Your task to perform on an android device: turn on airplane mode Image 0: 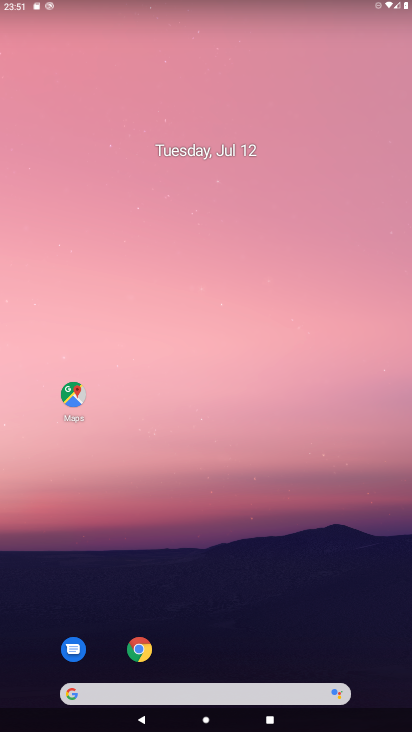
Step 0: drag from (357, 656) to (284, 166)
Your task to perform on an android device: turn on airplane mode Image 1: 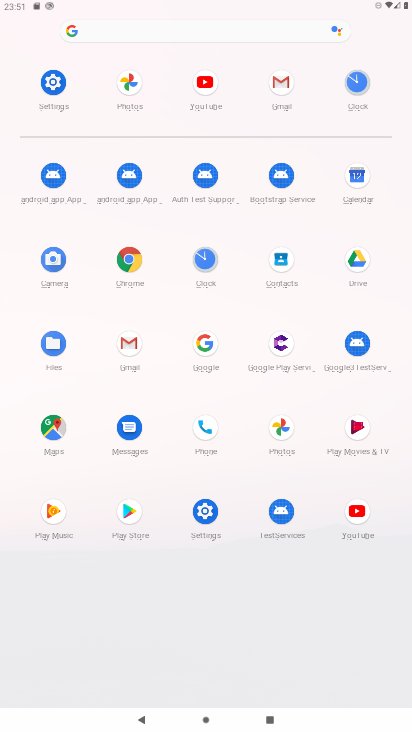
Step 1: click (202, 511)
Your task to perform on an android device: turn on airplane mode Image 2: 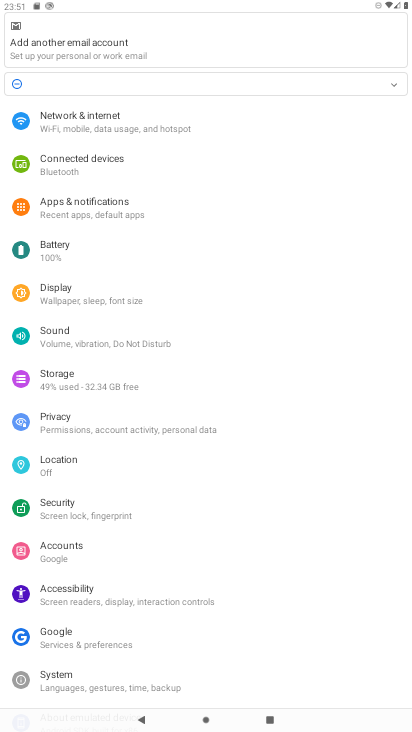
Step 2: click (88, 122)
Your task to perform on an android device: turn on airplane mode Image 3: 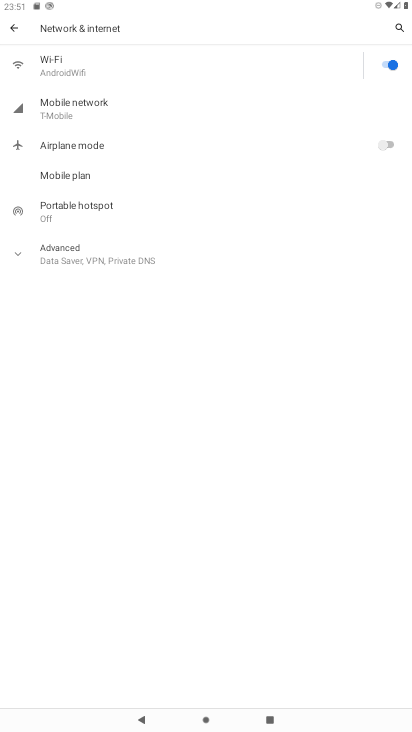
Step 3: click (393, 145)
Your task to perform on an android device: turn on airplane mode Image 4: 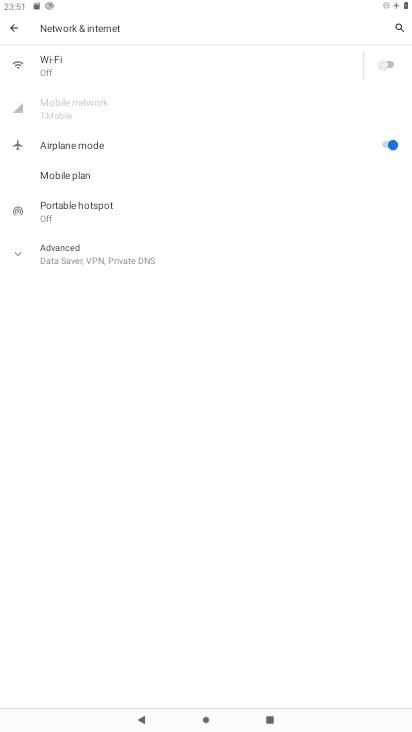
Step 4: task complete